Your task to perform on an android device: Open Youtube and go to the subscriptions tab Image 0: 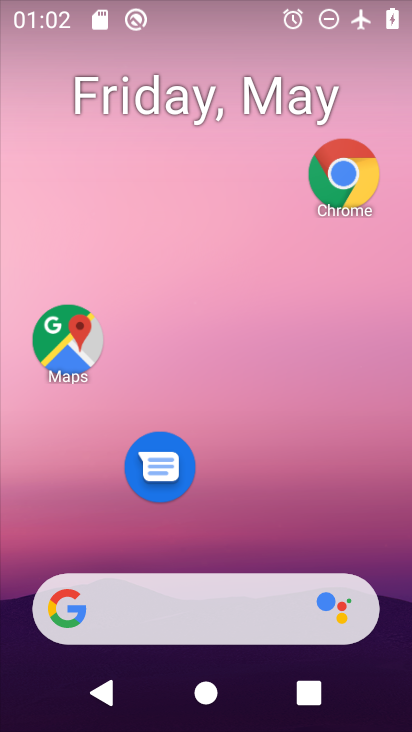
Step 0: drag from (258, 531) to (300, 204)
Your task to perform on an android device: Open Youtube and go to the subscriptions tab Image 1: 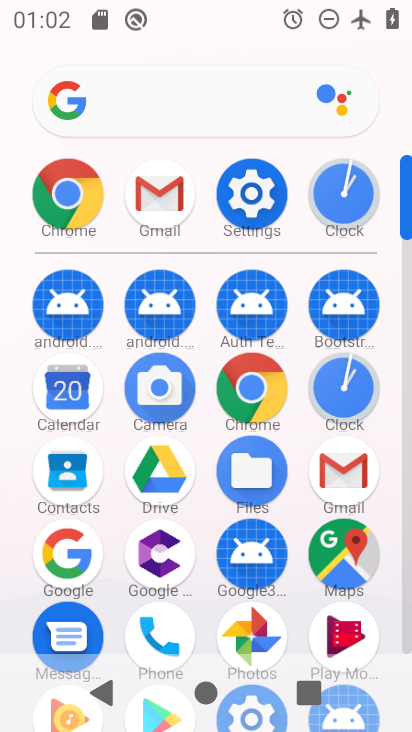
Step 1: drag from (339, 610) to (373, 232)
Your task to perform on an android device: Open Youtube and go to the subscriptions tab Image 2: 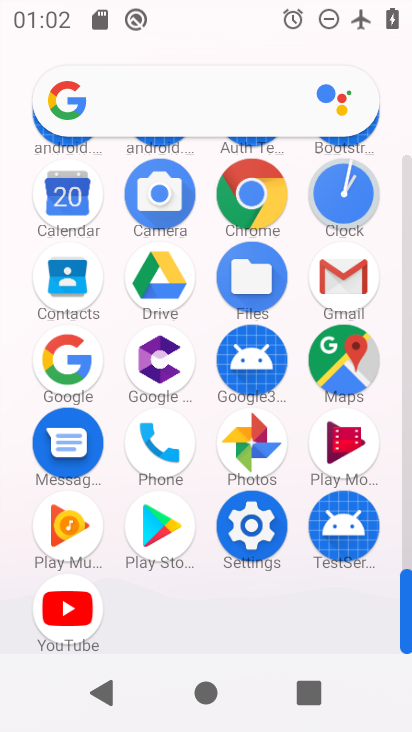
Step 2: click (69, 606)
Your task to perform on an android device: Open Youtube and go to the subscriptions tab Image 3: 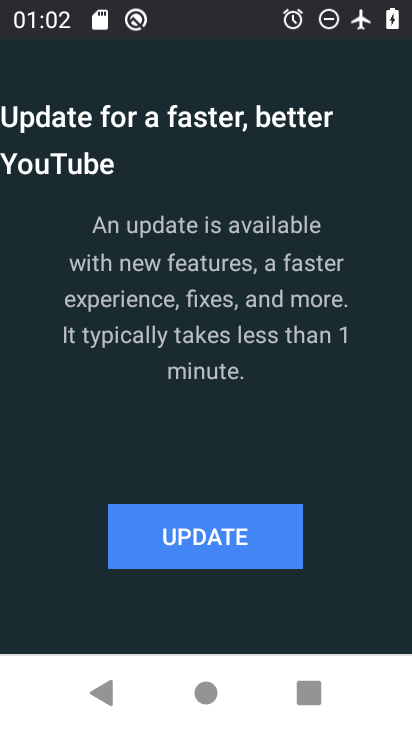
Step 3: task complete